Your task to perform on an android device: Do I have any events today? Image 0: 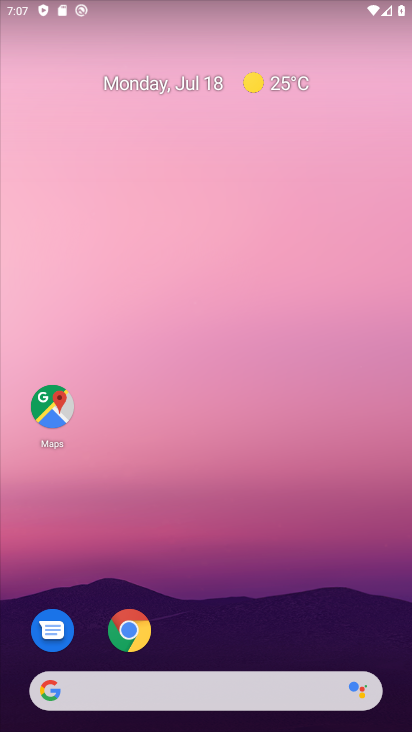
Step 0: drag from (263, 701) to (213, 234)
Your task to perform on an android device: Do I have any events today? Image 1: 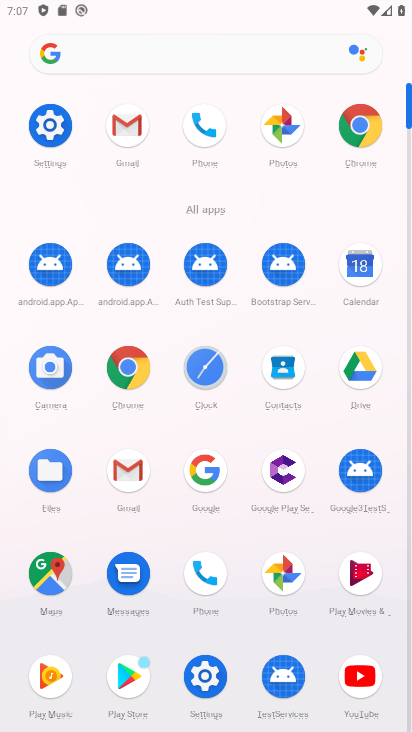
Step 1: click (128, 66)
Your task to perform on an android device: Do I have any events today? Image 2: 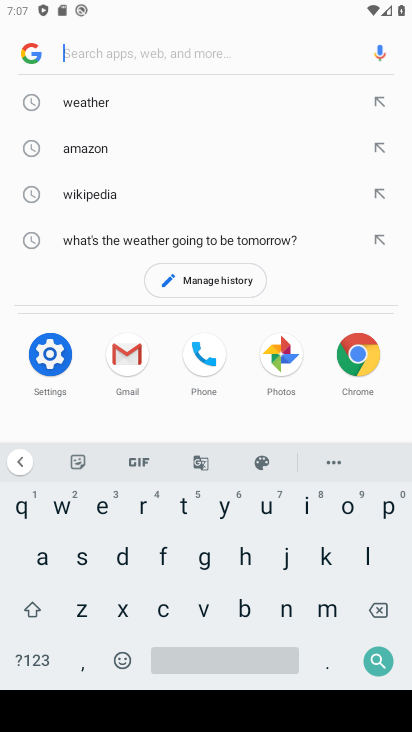
Step 2: press home button
Your task to perform on an android device: Do I have any events today? Image 3: 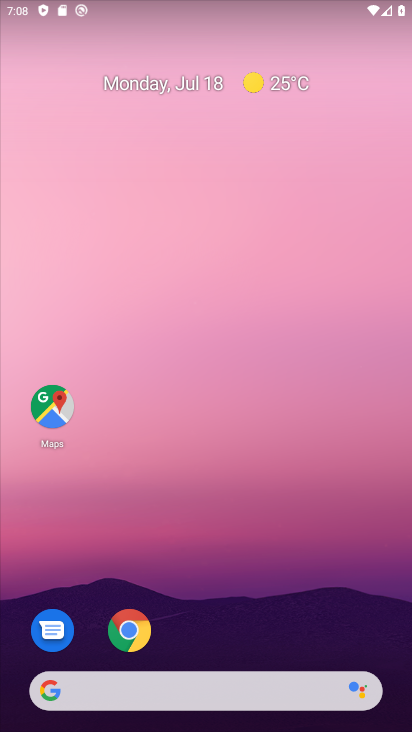
Step 3: drag from (243, 708) to (251, 234)
Your task to perform on an android device: Do I have any events today? Image 4: 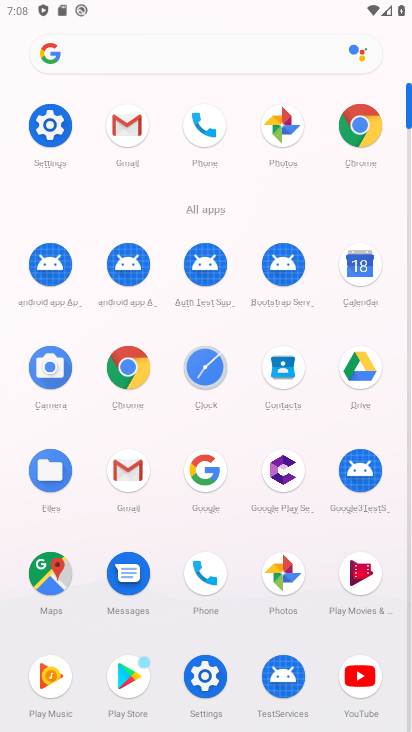
Step 4: click (345, 276)
Your task to perform on an android device: Do I have any events today? Image 5: 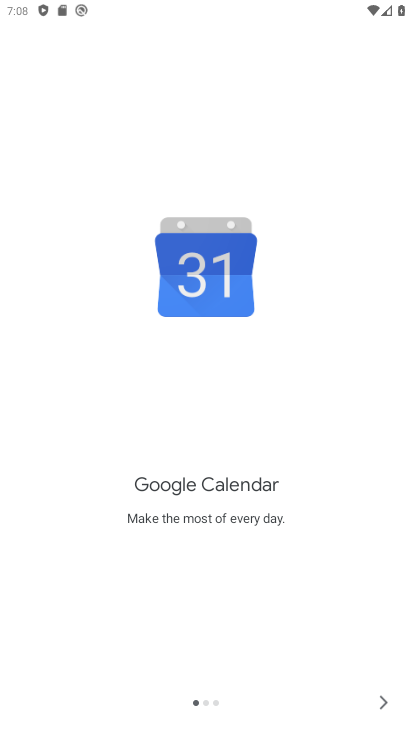
Step 5: click (381, 703)
Your task to perform on an android device: Do I have any events today? Image 6: 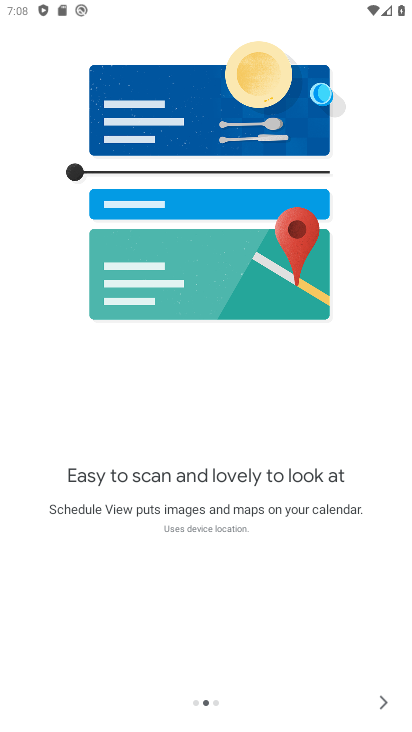
Step 6: click (381, 703)
Your task to perform on an android device: Do I have any events today? Image 7: 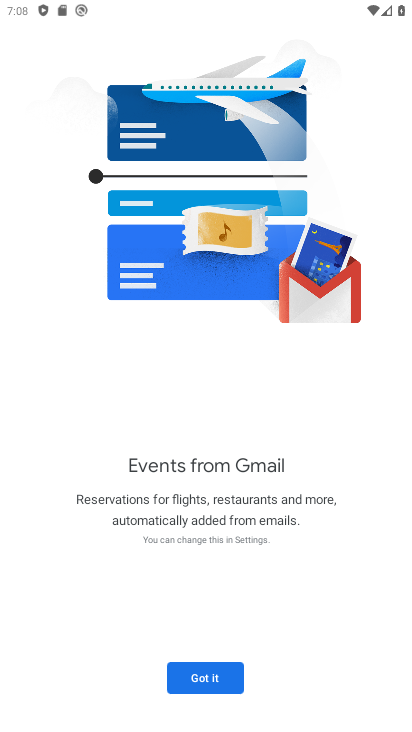
Step 7: click (228, 699)
Your task to perform on an android device: Do I have any events today? Image 8: 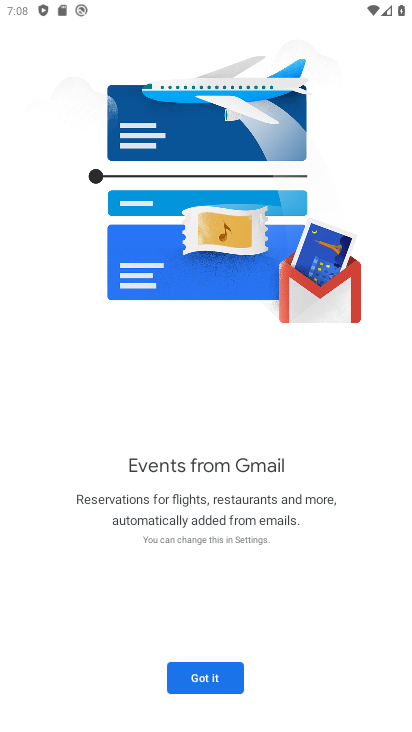
Step 8: click (219, 681)
Your task to perform on an android device: Do I have any events today? Image 9: 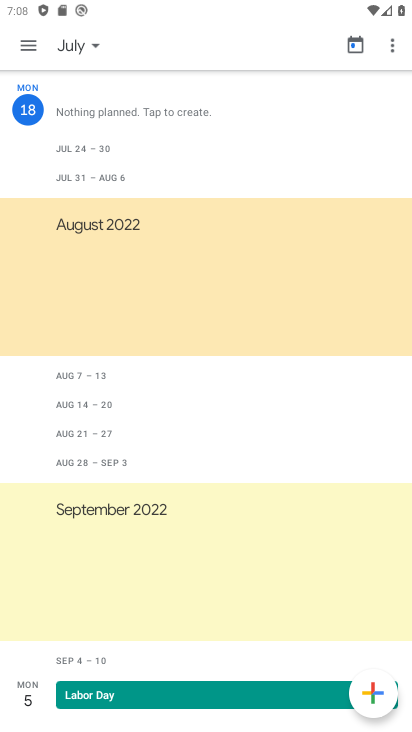
Step 9: task complete